Your task to perform on an android device: Open settings Image 0: 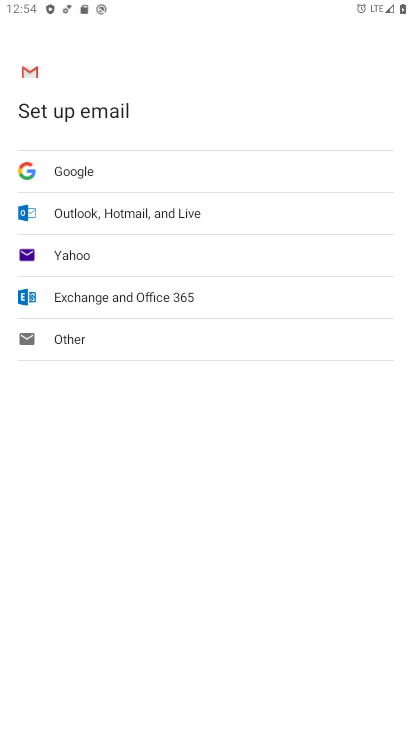
Step 0: press home button
Your task to perform on an android device: Open settings Image 1: 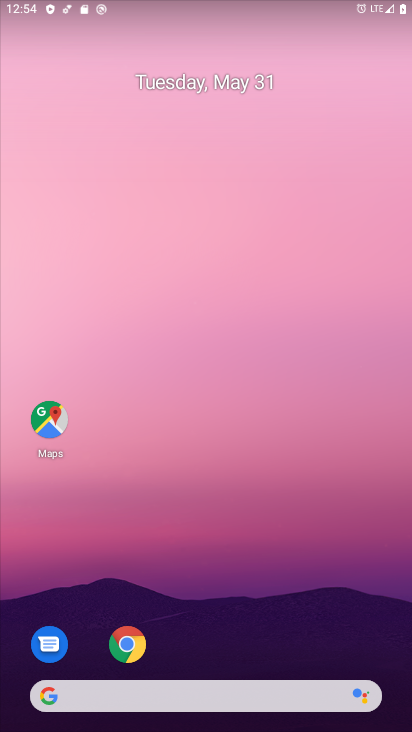
Step 1: drag from (212, 605) to (170, 205)
Your task to perform on an android device: Open settings Image 2: 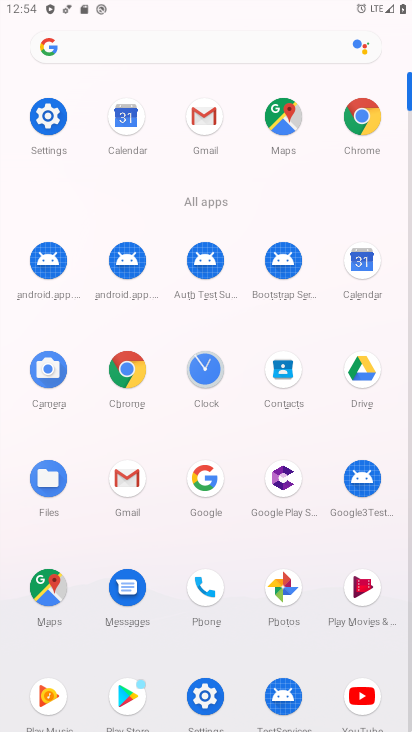
Step 2: click (46, 119)
Your task to perform on an android device: Open settings Image 3: 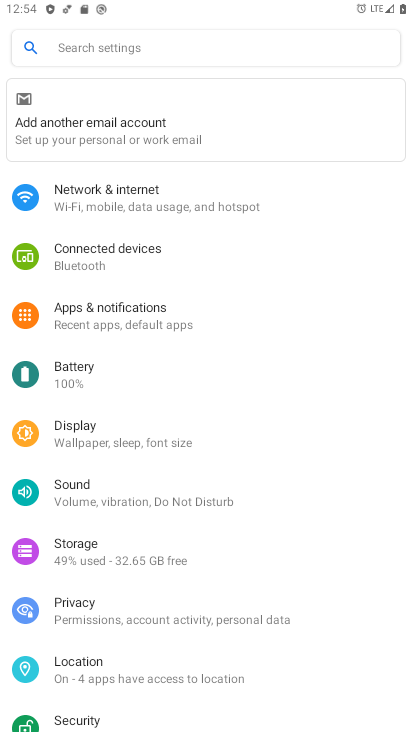
Step 3: task complete